Your task to perform on an android device: toggle airplane mode Image 0: 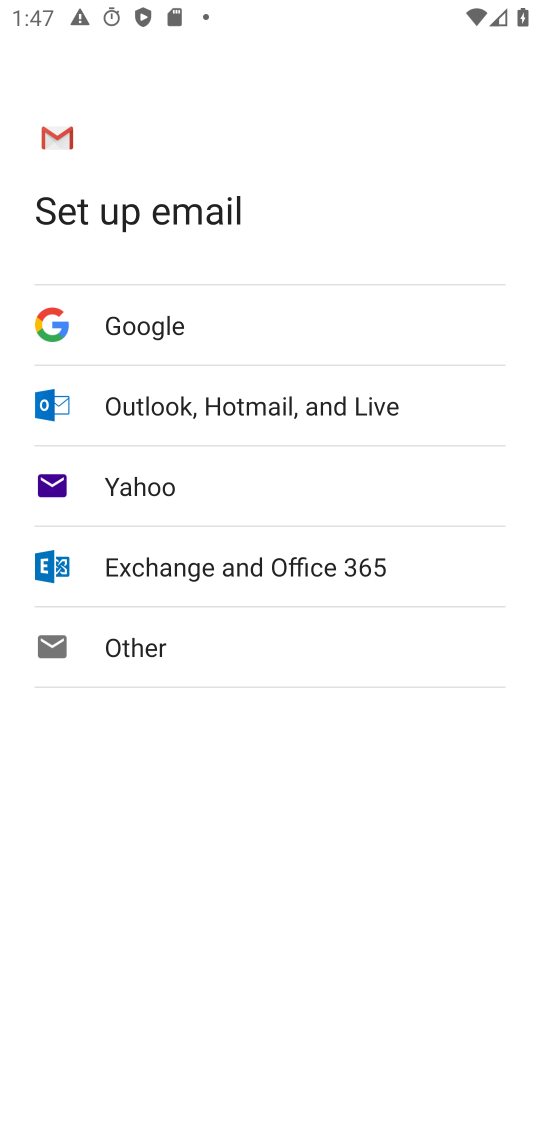
Step 0: press home button
Your task to perform on an android device: toggle airplane mode Image 1: 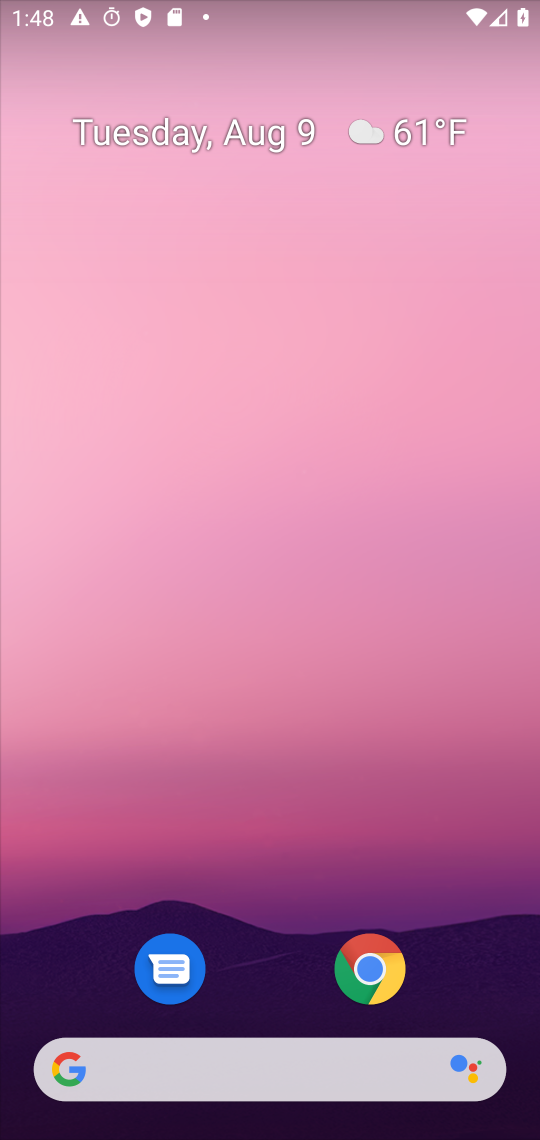
Step 1: drag from (314, 1103) to (327, 392)
Your task to perform on an android device: toggle airplane mode Image 2: 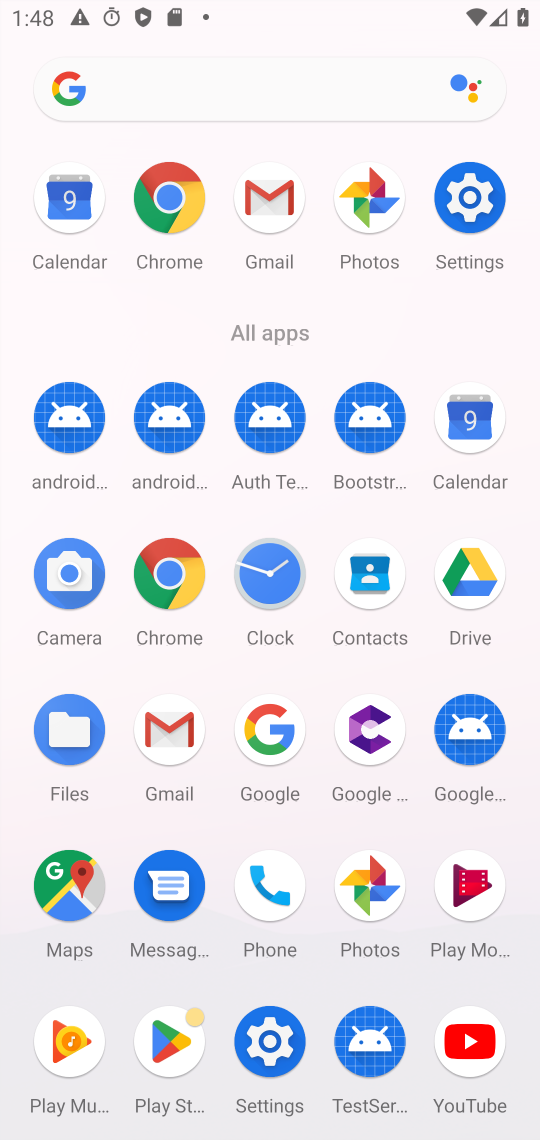
Step 2: click (472, 210)
Your task to perform on an android device: toggle airplane mode Image 3: 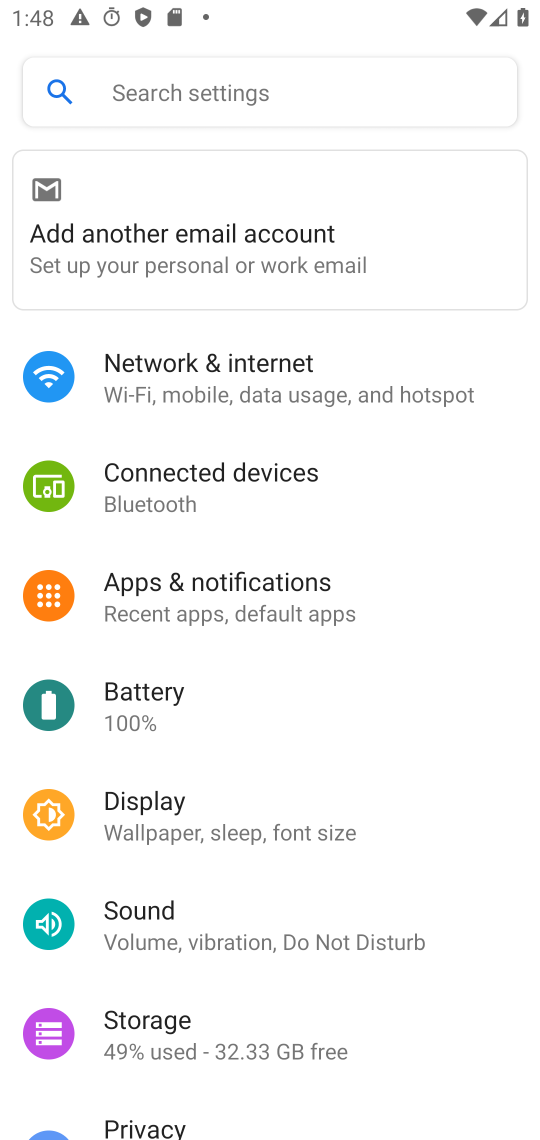
Step 3: click (204, 378)
Your task to perform on an android device: toggle airplane mode Image 4: 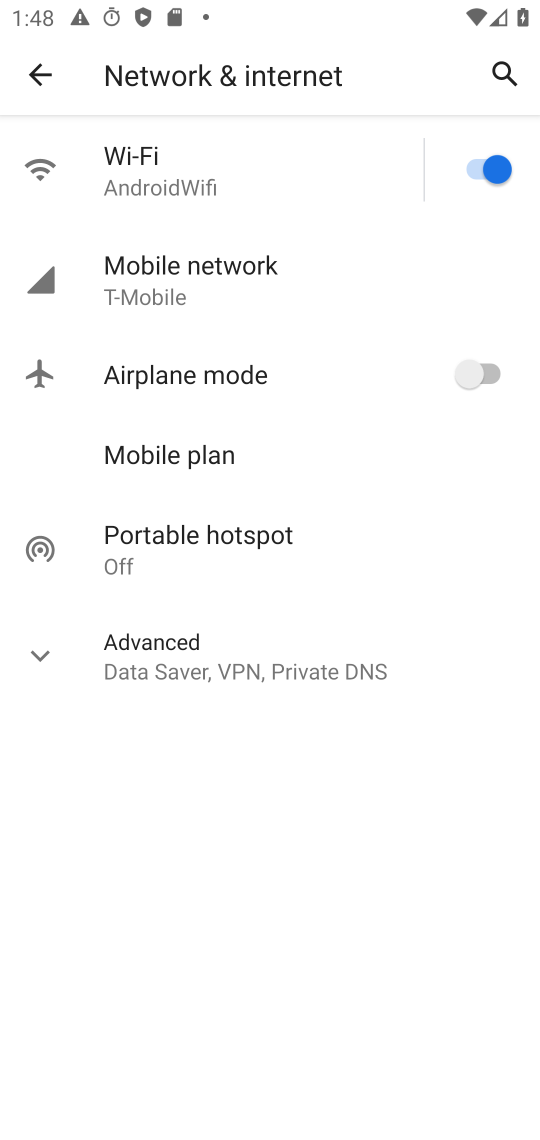
Step 4: click (291, 375)
Your task to perform on an android device: toggle airplane mode Image 5: 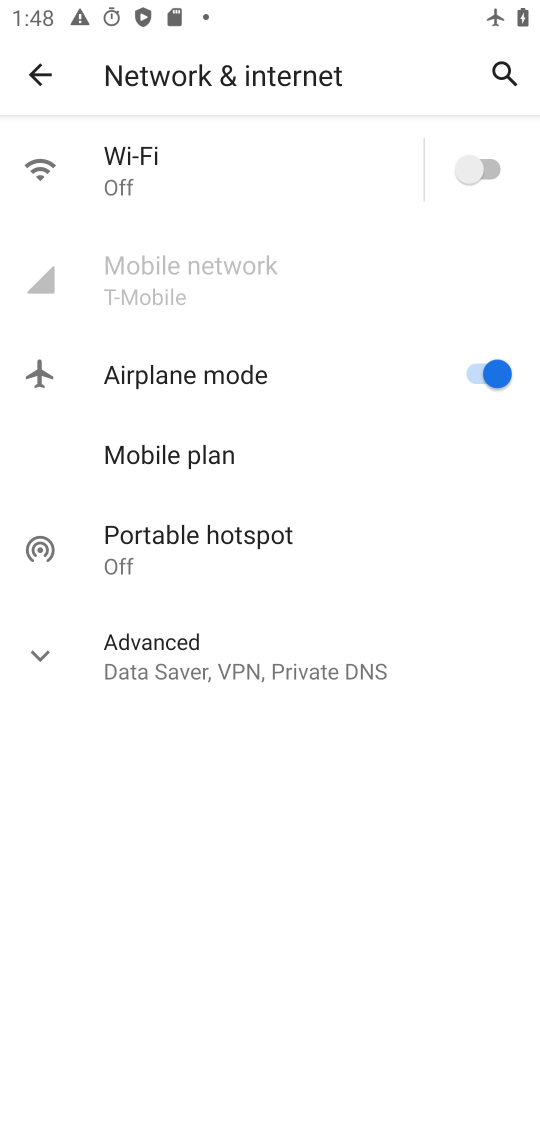
Step 5: click (291, 375)
Your task to perform on an android device: toggle airplane mode Image 6: 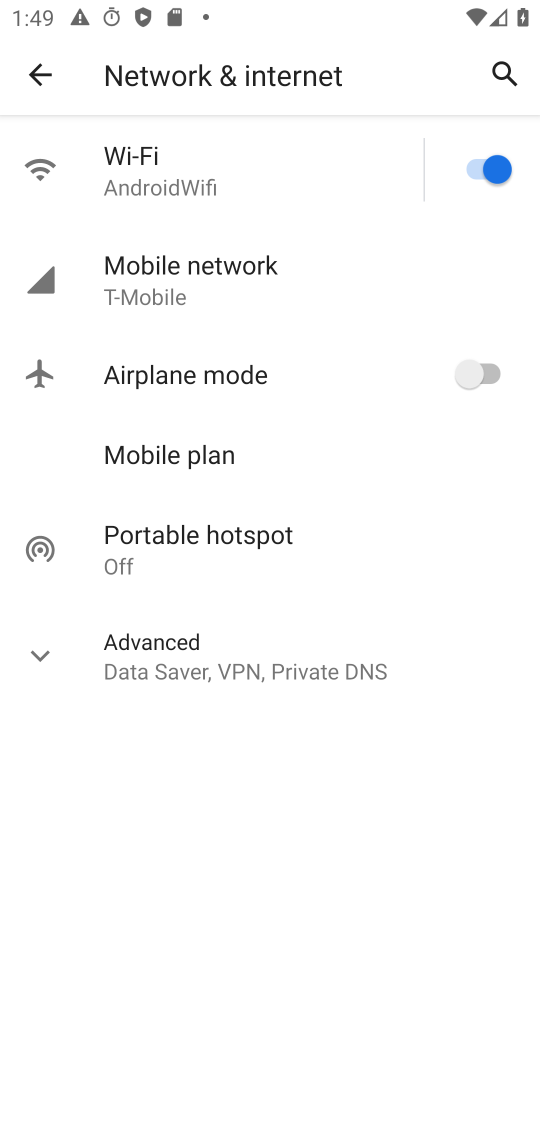
Step 6: task complete